Your task to perform on an android device: Search for hotels in London Image 0: 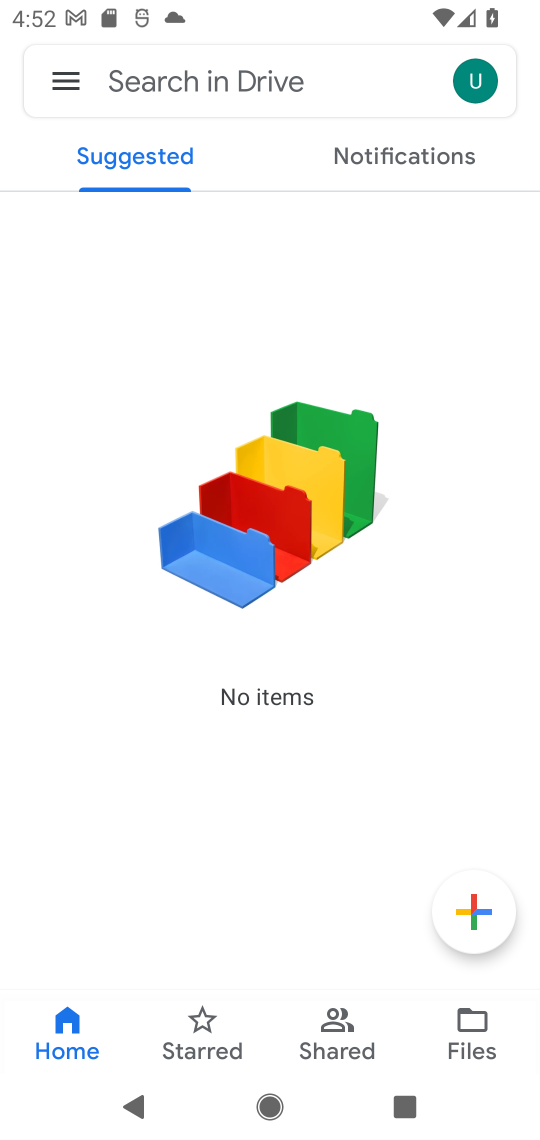
Step 0: press home button
Your task to perform on an android device: Search for hotels in London Image 1: 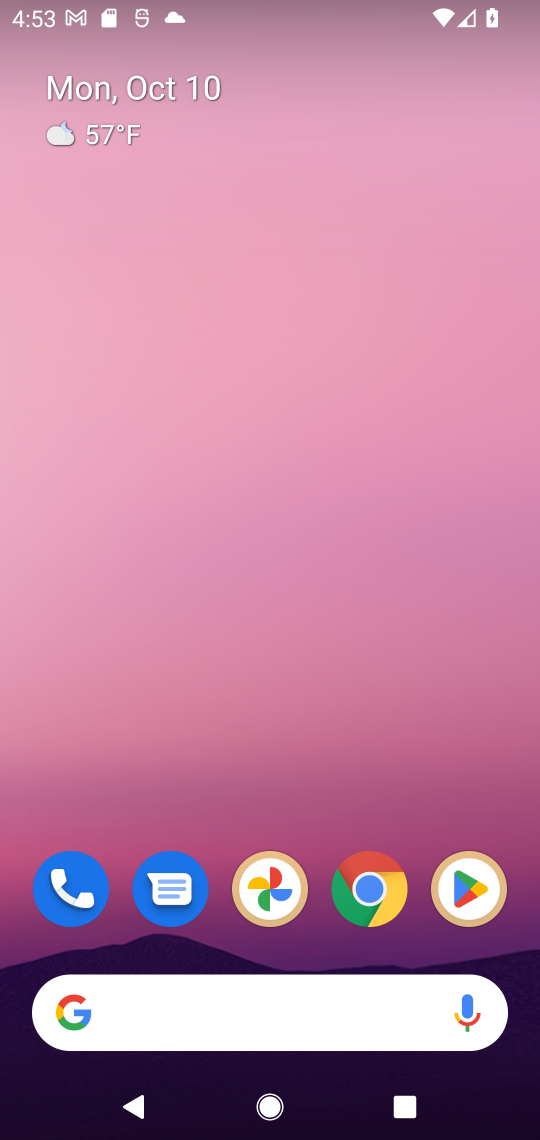
Step 1: click (366, 891)
Your task to perform on an android device: Search for hotels in London Image 2: 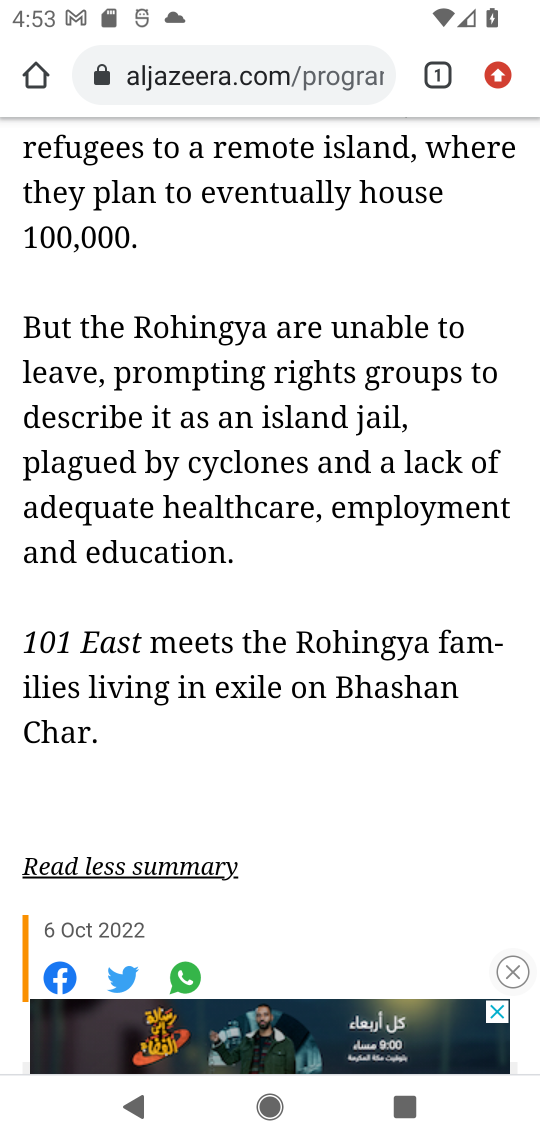
Step 2: click (225, 55)
Your task to perform on an android device: Search for hotels in London Image 3: 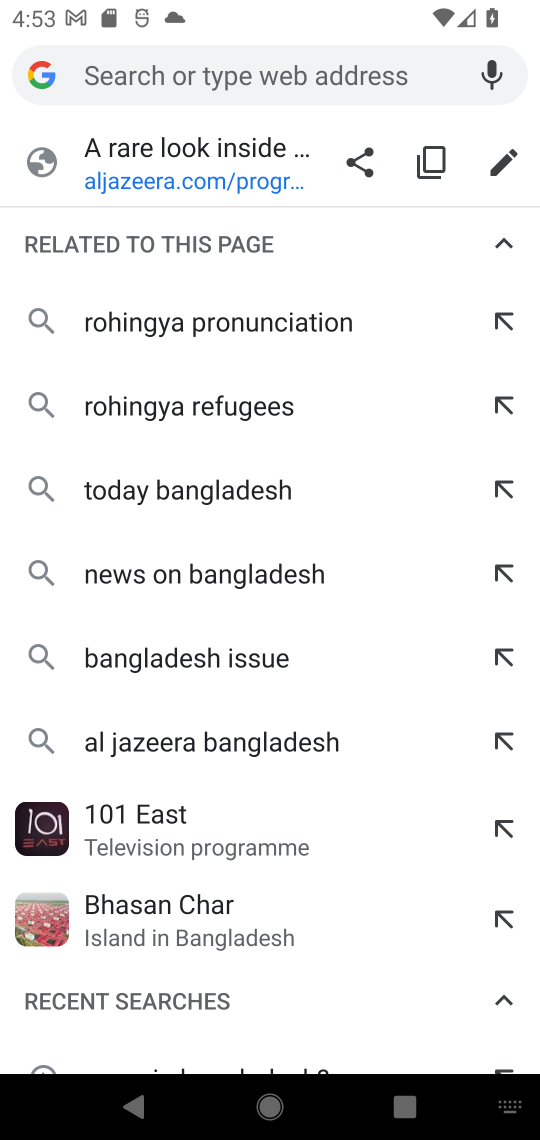
Step 3: type "hotels in London"
Your task to perform on an android device: Search for hotels in London Image 4: 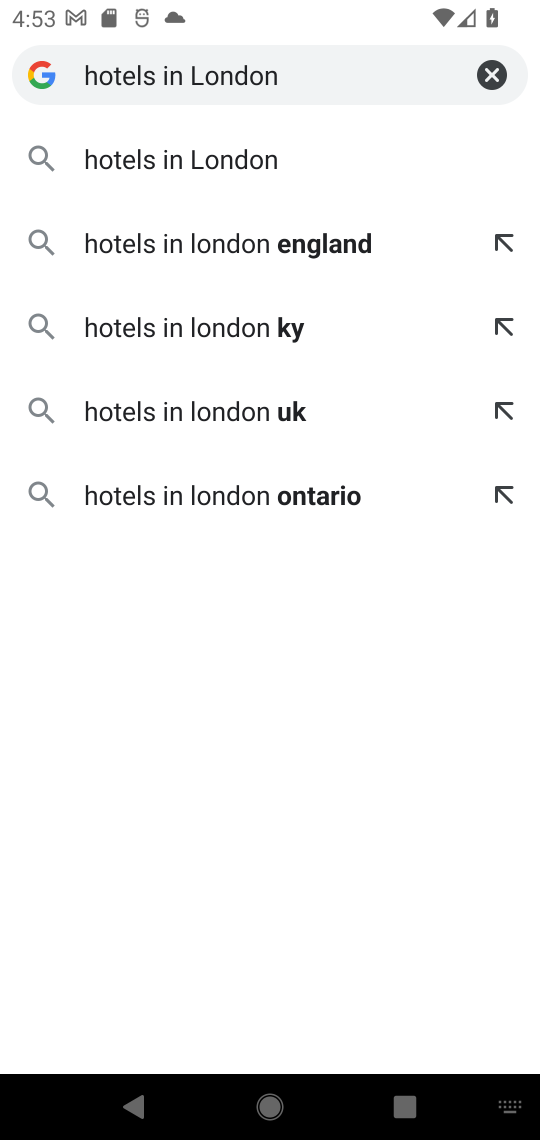
Step 4: click (174, 162)
Your task to perform on an android device: Search for hotels in London Image 5: 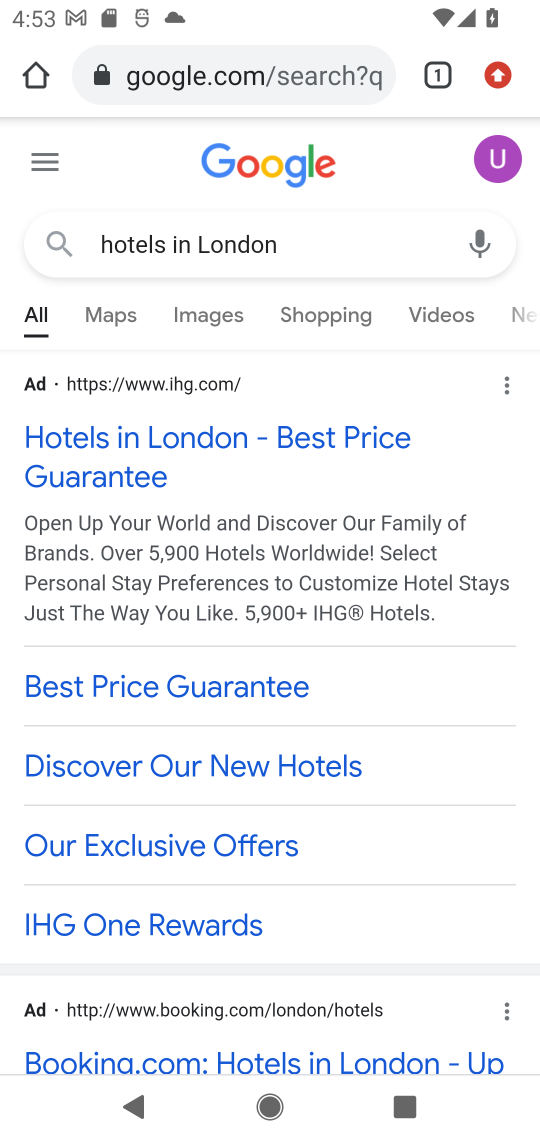
Step 5: click (129, 450)
Your task to perform on an android device: Search for hotels in London Image 6: 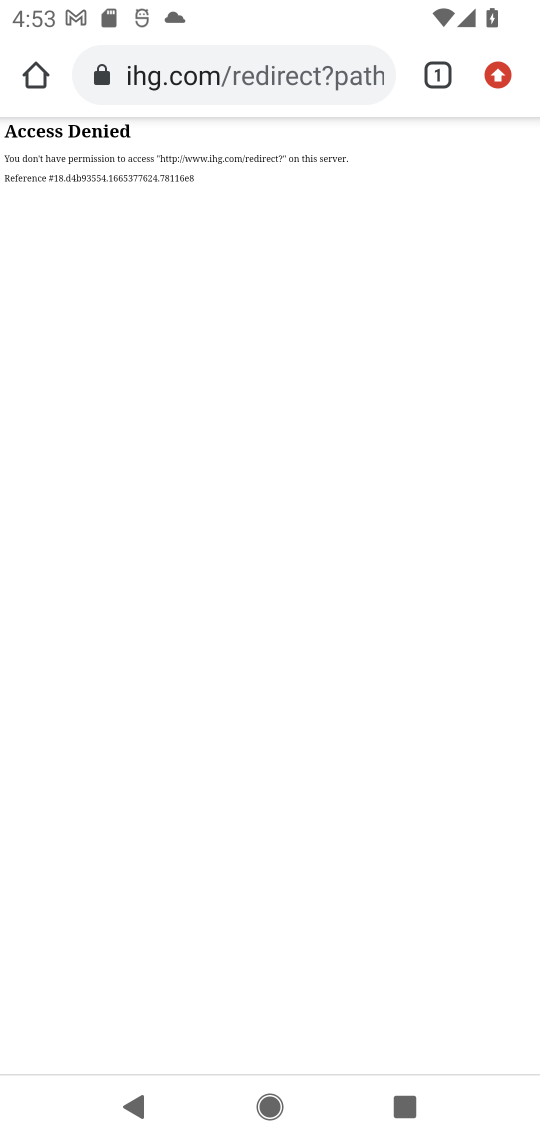
Step 6: press back button
Your task to perform on an android device: Search for hotels in London Image 7: 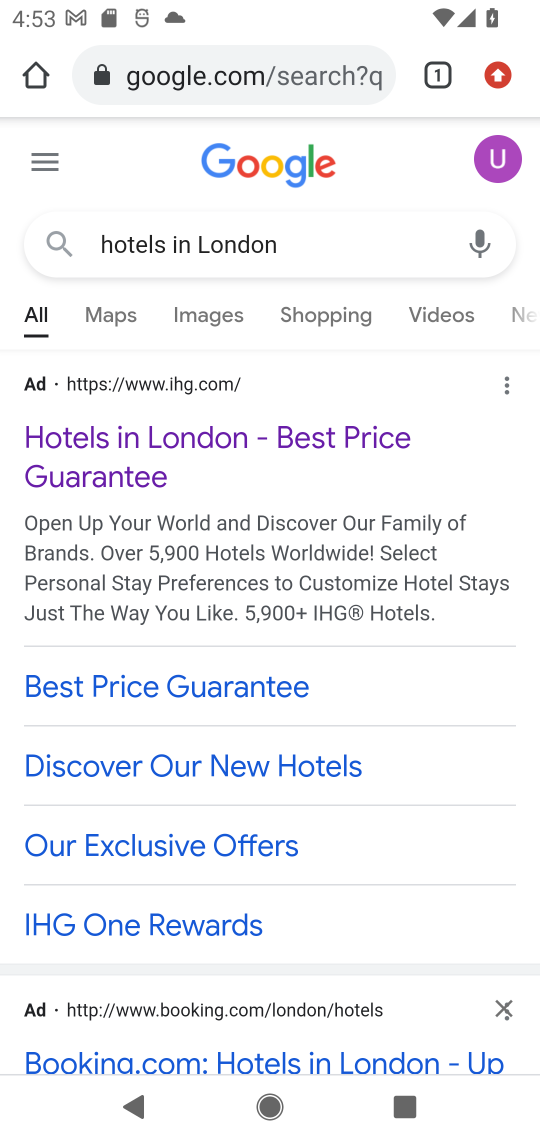
Step 7: drag from (319, 974) to (273, 223)
Your task to perform on an android device: Search for hotels in London Image 8: 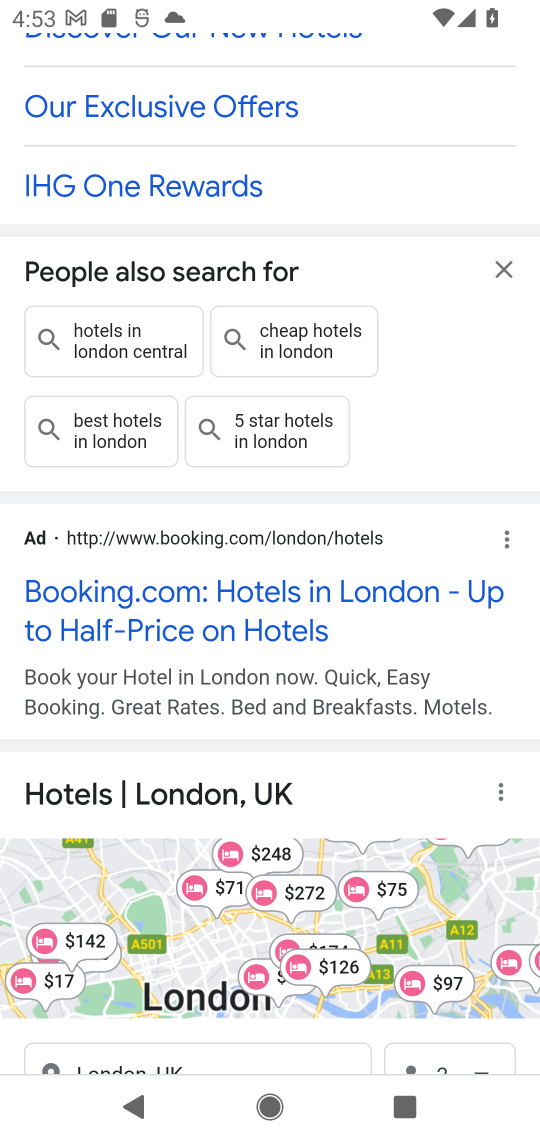
Step 8: click (134, 607)
Your task to perform on an android device: Search for hotels in London Image 9: 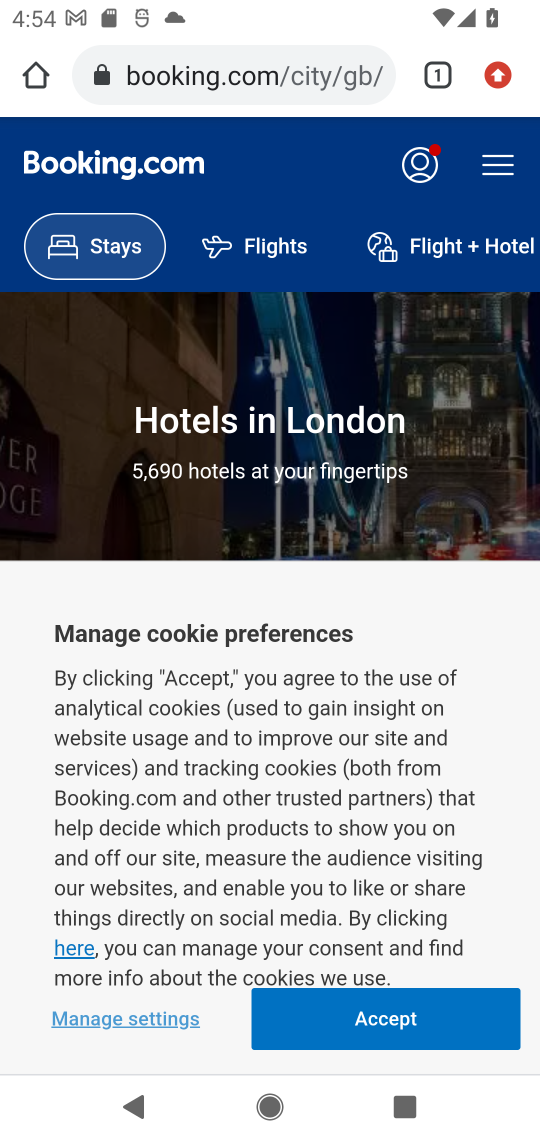
Step 9: click (380, 1021)
Your task to perform on an android device: Search for hotels in London Image 10: 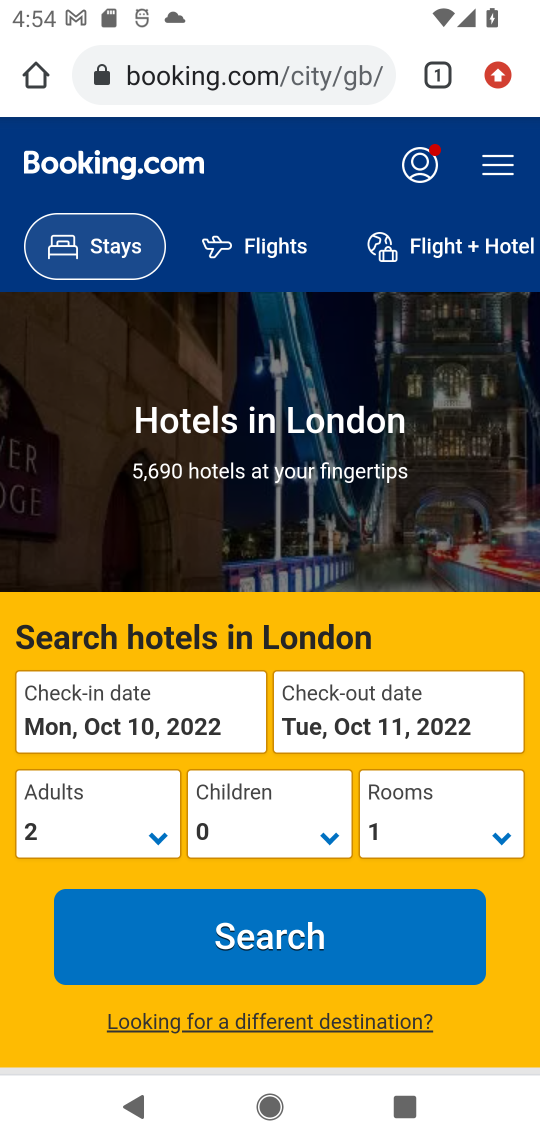
Step 10: click (380, 1021)
Your task to perform on an android device: Search for hotels in London Image 11: 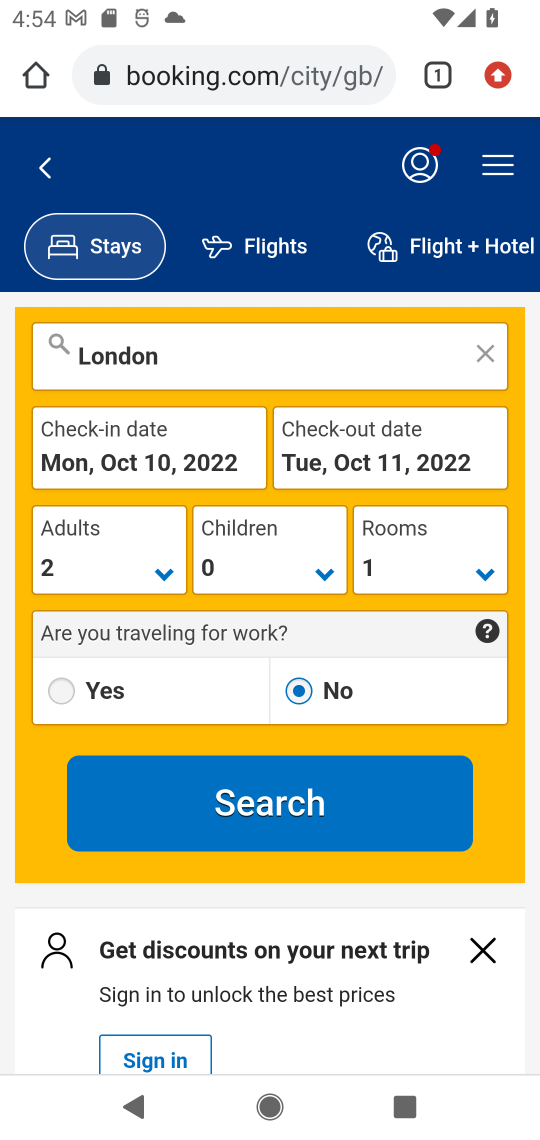
Step 11: click (380, 1021)
Your task to perform on an android device: Search for hotels in London Image 12: 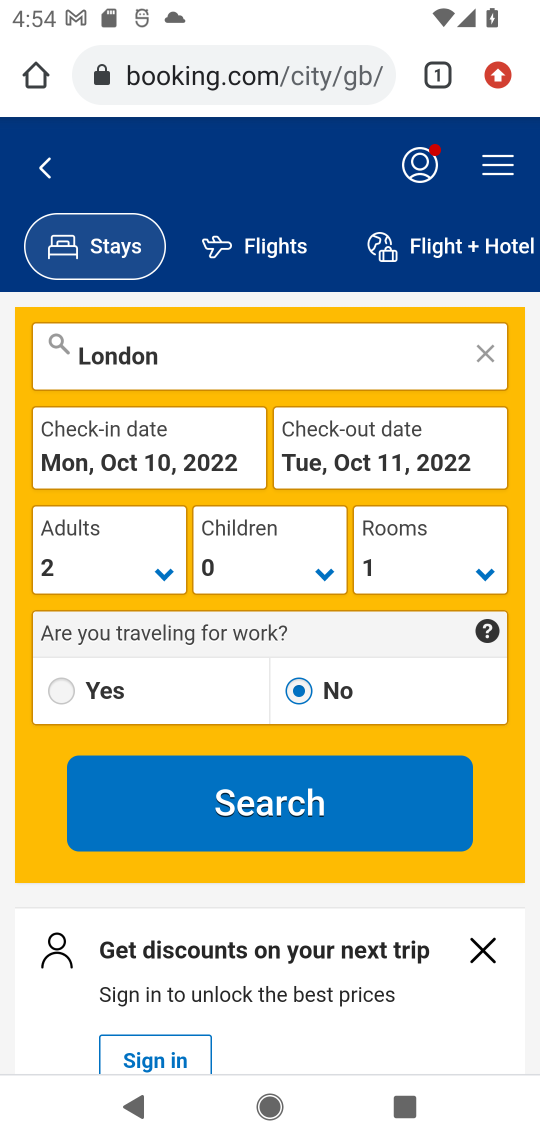
Step 12: click (481, 943)
Your task to perform on an android device: Search for hotels in London Image 13: 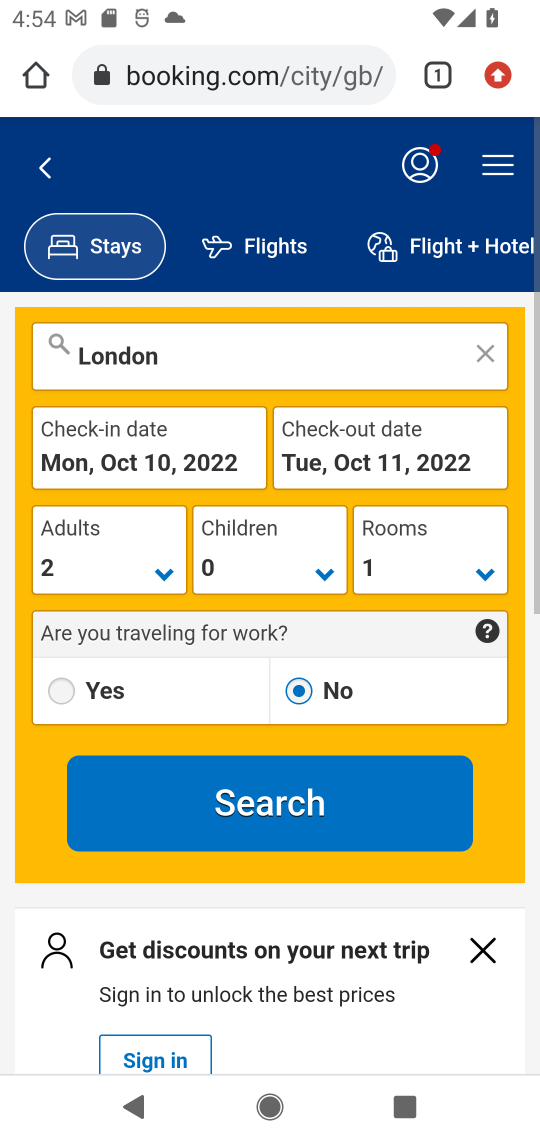
Step 13: click (252, 824)
Your task to perform on an android device: Search for hotels in London Image 14: 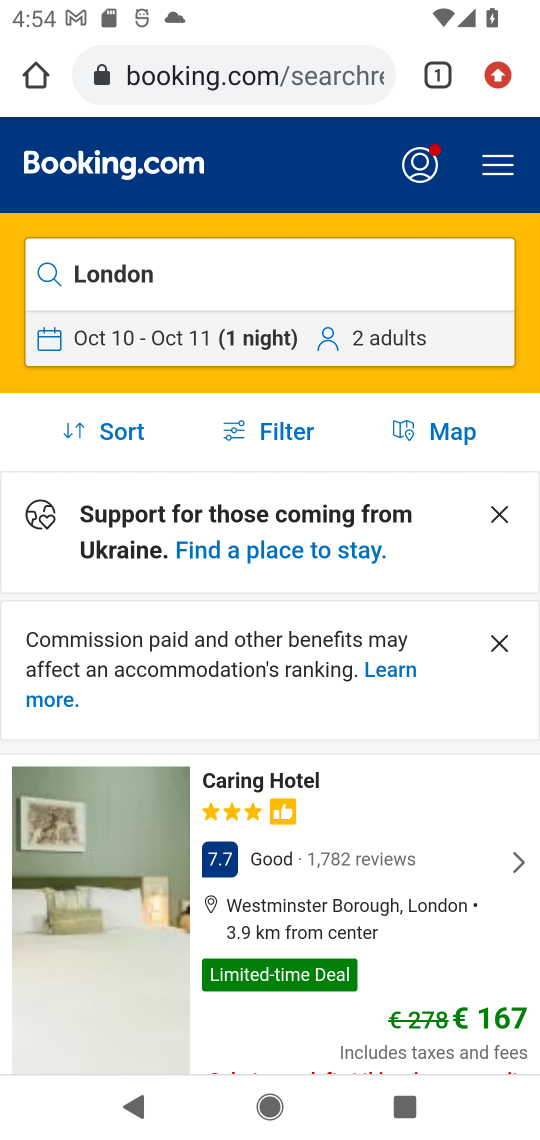
Step 14: task complete